Your task to perform on an android device: Go to Google maps Image 0: 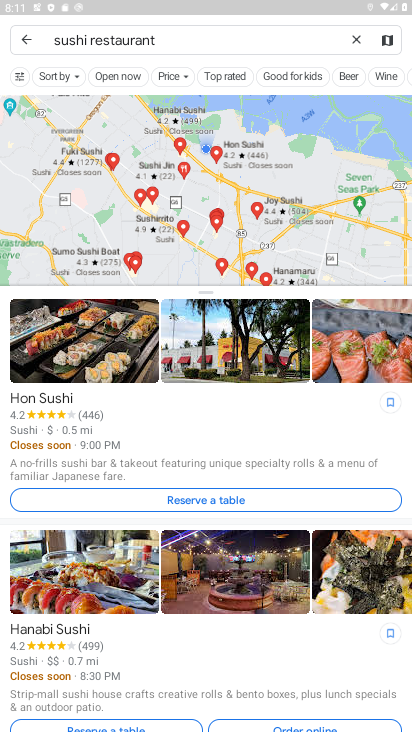
Step 0: task complete